Your task to perform on an android device: open chrome and create a bookmark for the current page Image 0: 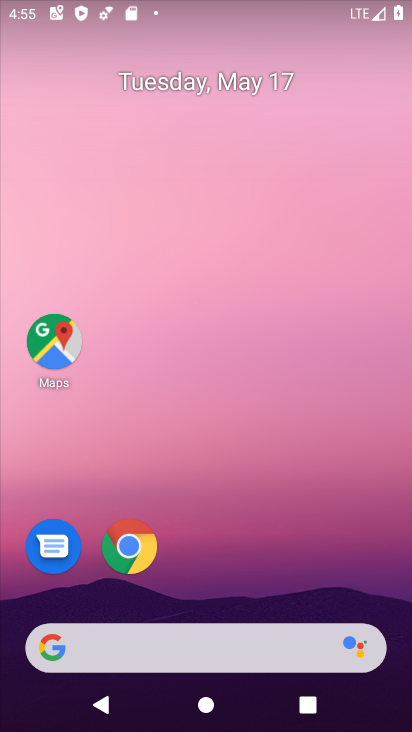
Step 0: drag from (282, 582) to (359, 1)
Your task to perform on an android device: open chrome and create a bookmark for the current page Image 1: 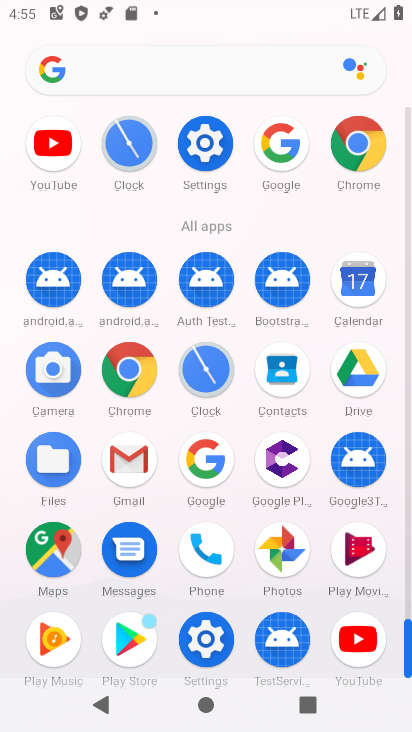
Step 1: click (356, 200)
Your task to perform on an android device: open chrome and create a bookmark for the current page Image 2: 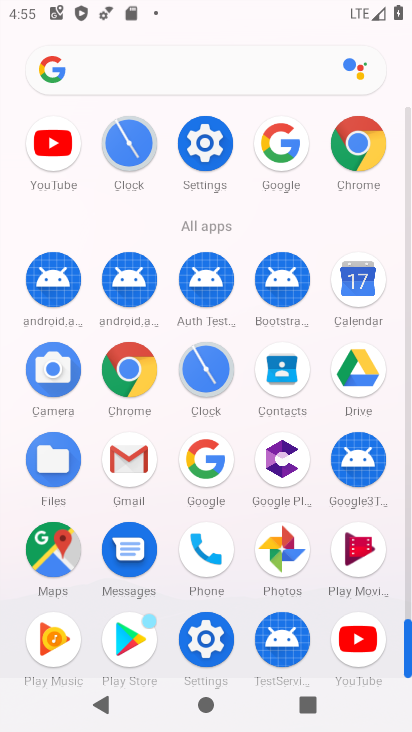
Step 2: click (362, 184)
Your task to perform on an android device: open chrome and create a bookmark for the current page Image 3: 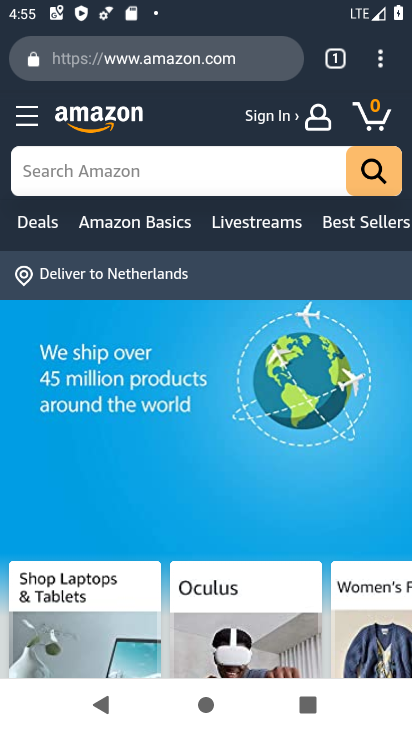
Step 3: click (378, 61)
Your task to perform on an android device: open chrome and create a bookmark for the current page Image 4: 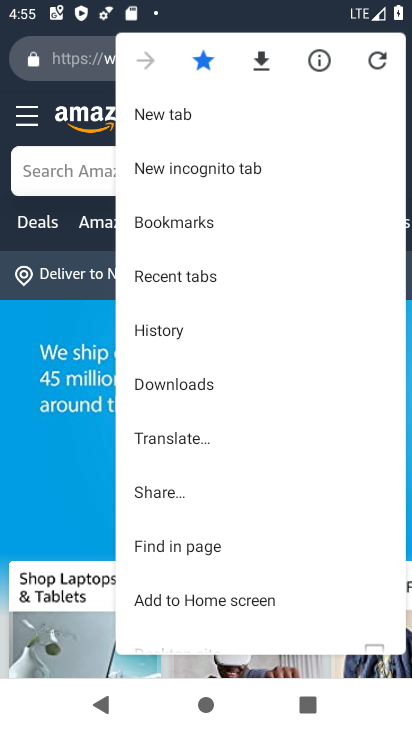
Step 4: drag from (210, 565) to (300, 134)
Your task to perform on an android device: open chrome and create a bookmark for the current page Image 5: 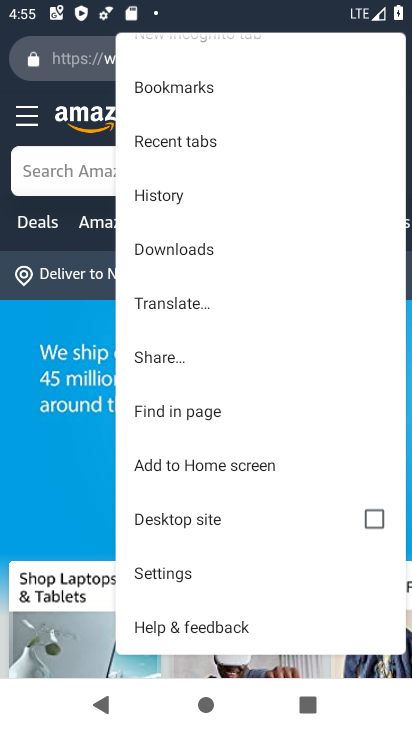
Step 5: press back button
Your task to perform on an android device: open chrome and create a bookmark for the current page Image 6: 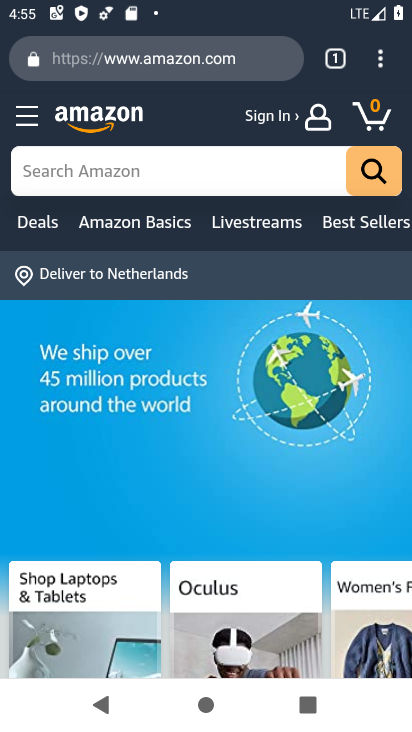
Step 6: click (379, 57)
Your task to perform on an android device: open chrome and create a bookmark for the current page Image 7: 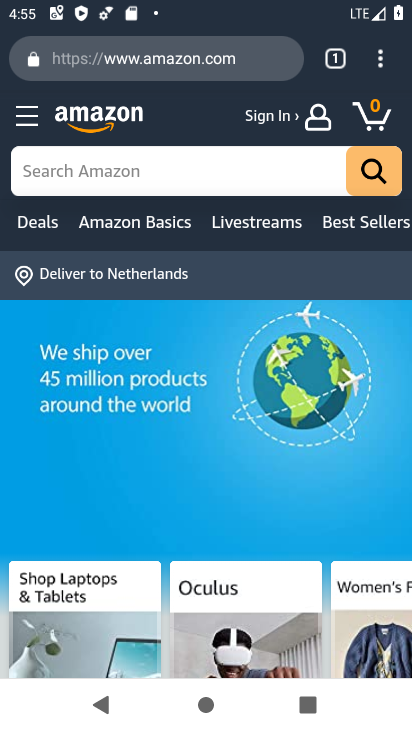
Step 7: click (381, 60)
Your task to perform on an android device: open chrome and create a bookmark for the current page Image 8: 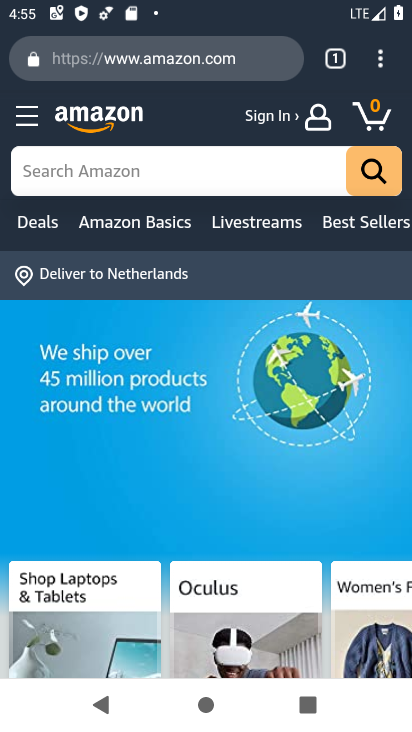
Step 8: click (381, 61)
Your task to perform on an android device: open chrome and create a bookmark for the current page Image 9: 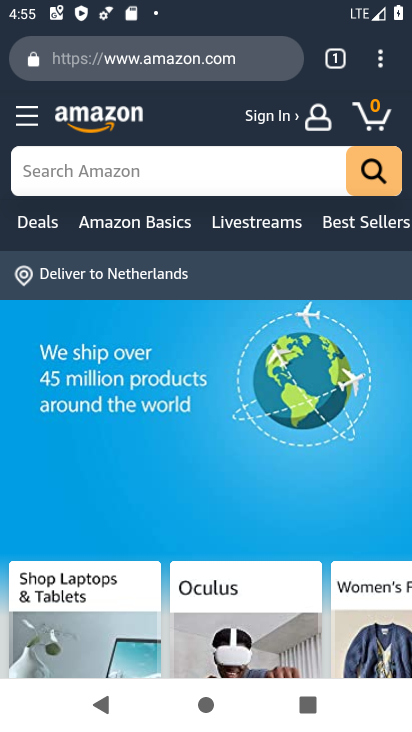
Step 9: click (392, 57)
Your task to perform on an android device: open chrome and create a bookmark for the current page Image 10: 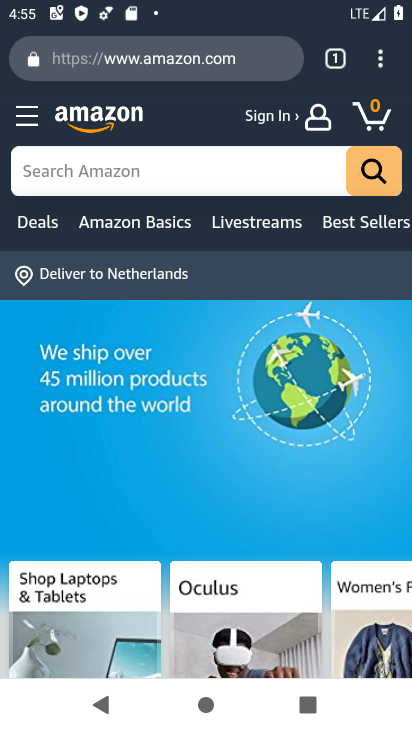
Step 10: click (383, 52)
Your task to perform on an android device: open chrome and create a bookmark for the current page Image 11: 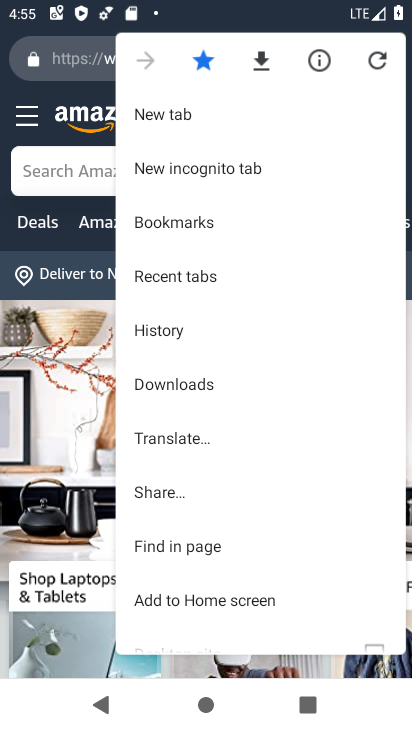
Step 11: task complete